Your task to perform on an android device: turn off airplane mode Image 0: 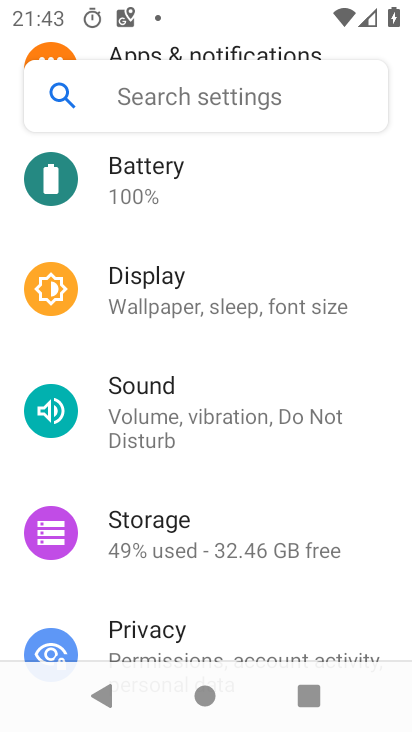
Step 0: drag from (242, 589) to (306, 489)
Your task to perform on an android device: turn off airplane mode Image 1: 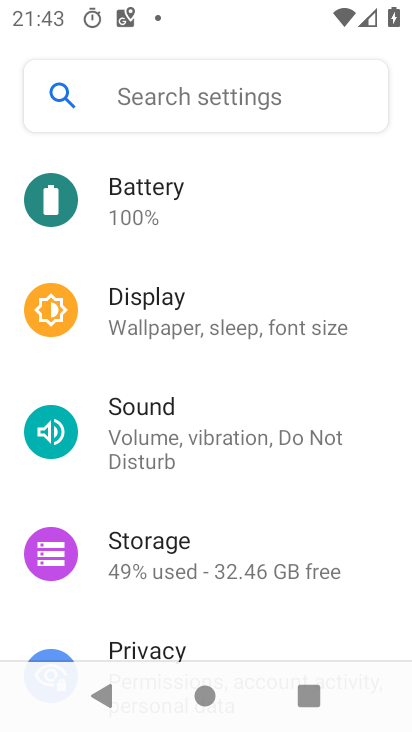
Step 1: drag from (298, 234) to (288, 565)
Your task to perform on an android device: turn off airplane mode Image 2: 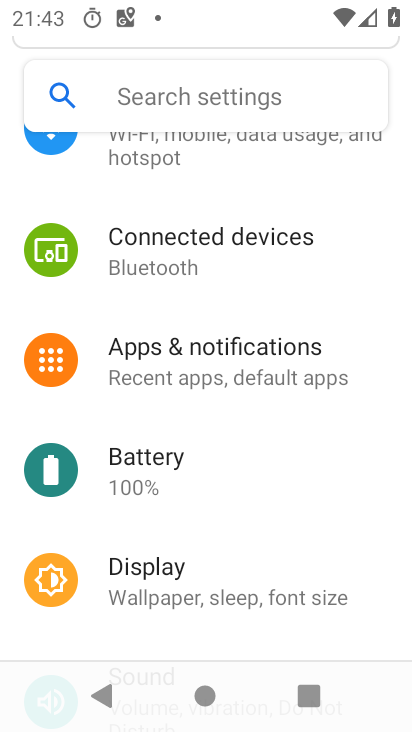
Step 2: drag from (333, 304) to (323, 590)
Your task to perform on an android device: turn off airplane mode Image 3: 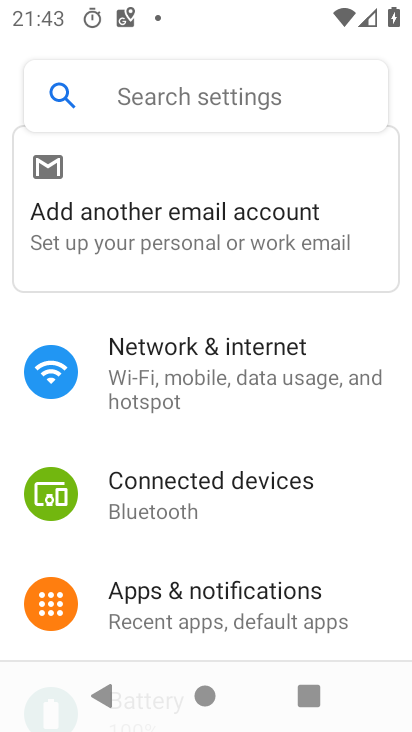
Step 3: click (288, 359)
Your task to perform on an android device: turn off airplane mode Image 4: 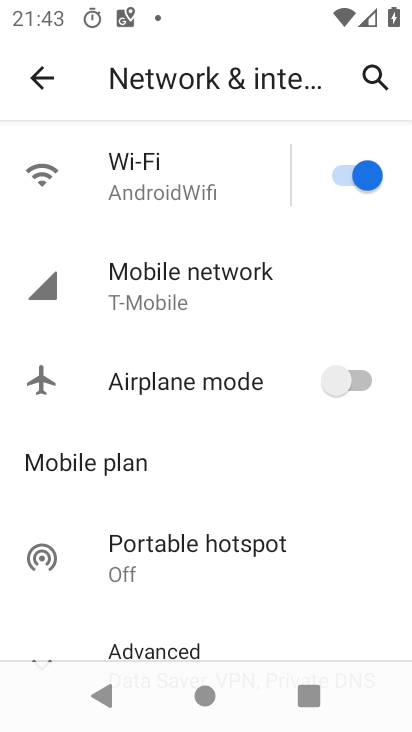
Step 4: task complete